Your task to perform on an android device: Open eBay Image 0: 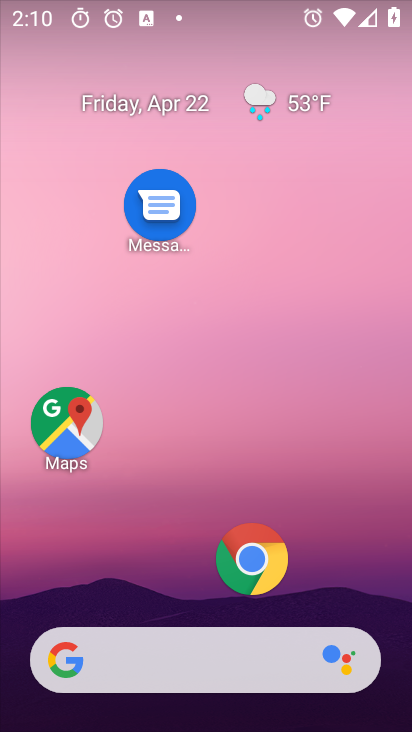
Step 0: click (240, 574)
Your task to perform on an android device: Open eBay Image 1: 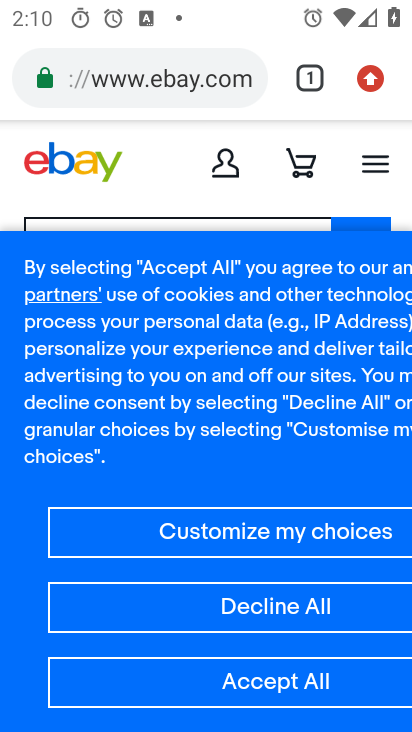
Step 1: task complete